Your task to perform on an android device: Open Google Chrome and click the shortcut for Amazon.com Image 0: 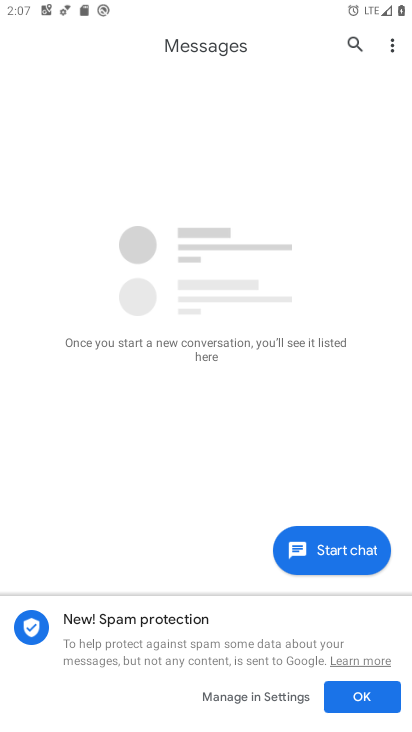
Step 0: press home button
Your task to perform on an android device: Open Google Chrome and click the shortcut for Amazon.com Image 1: 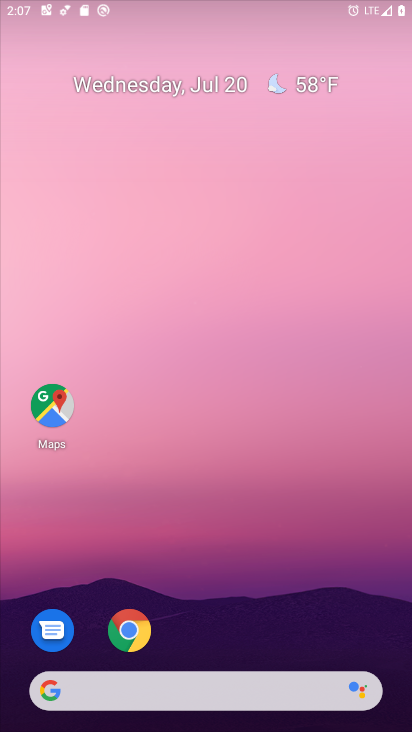
Step 1: drag from (244, 656) to (304, 136)
Your task to perform on an android device: Open Google Chrome and click the shortcut for Amazon.com Image 2: 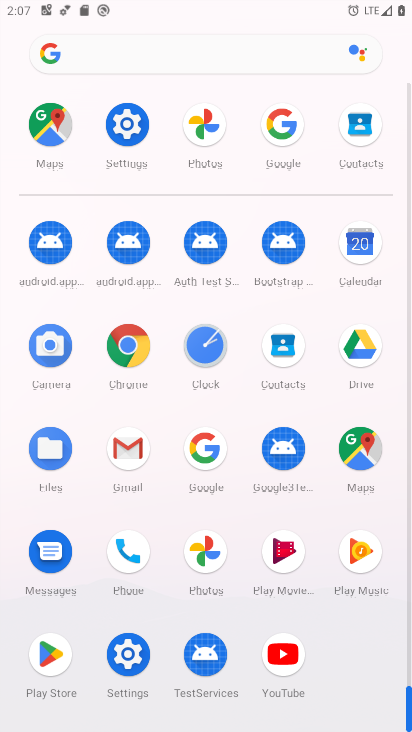
Step 2: click (135, 363)
Your task to perform on an android device: Open Google Chrome and click the shortcut for Amazon.com Image 3: 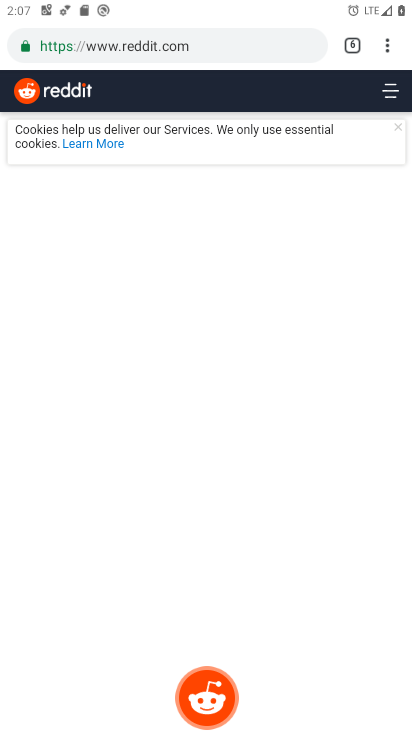
Step 3: drag from (355, 45) to (295, 338)
Your task to perform on an android device: Open Google Chrome and click the shortcut for Amazon.com Image 4: 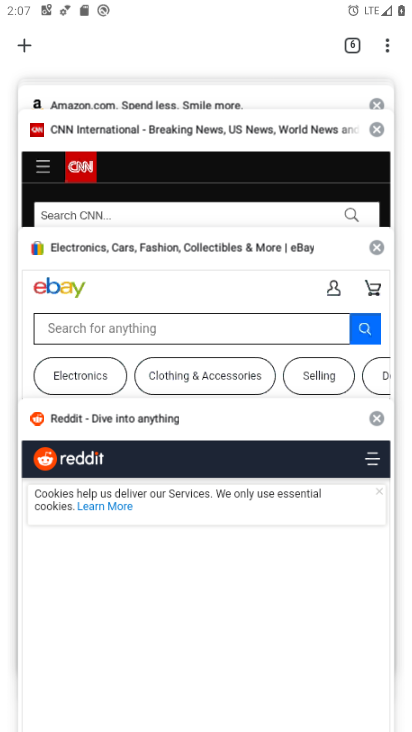
Step 4: click (24, 46)
Your task to perform on an android device: Open Google Chrome and click the shortcut for Amazon.com Image 5: 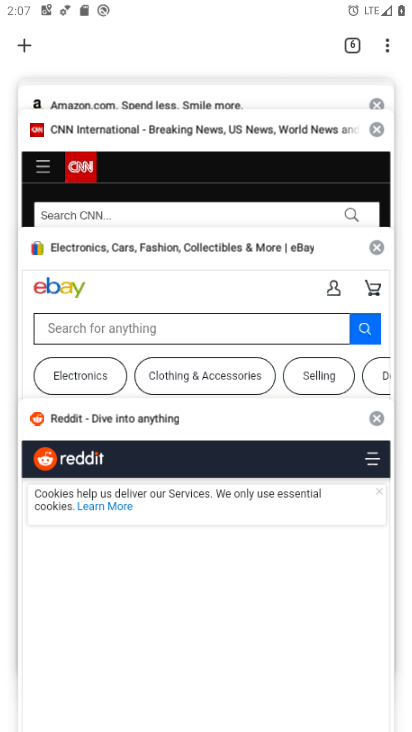
Step 5: click (28, 49)
Your task to perform on an android device: Open Google Chrome and click the shortcut for Amazon.com Image 6: 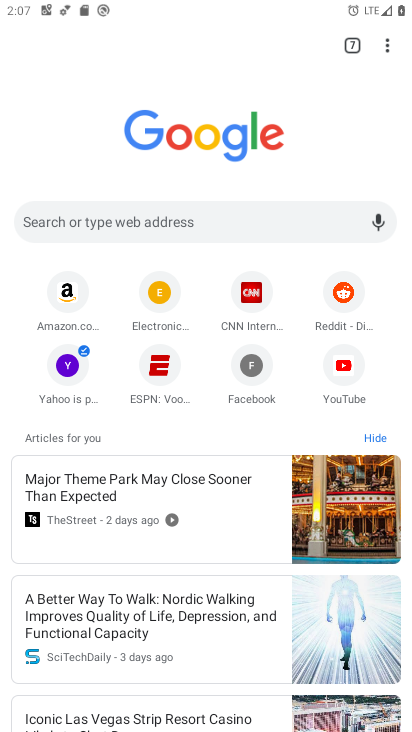
Step 6: click (71, 307)
Your task to perform on an android device: Open Google Chrome and click the shortcut for Amazon.com Image 7: 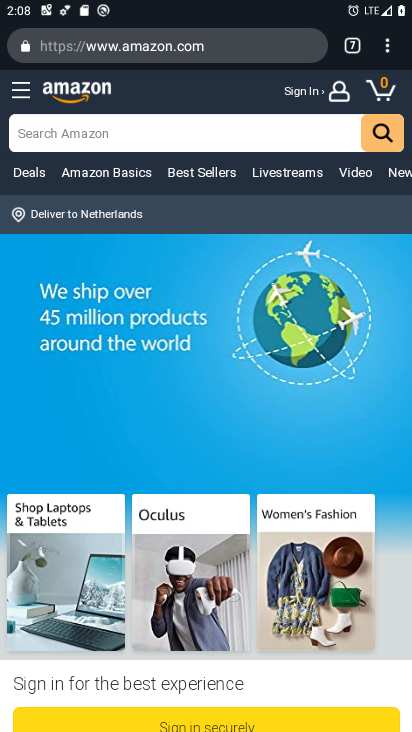
Step 7: task complete